Your task to perform on an android device: Open Google Maps and go to "Timeline" Image 0: 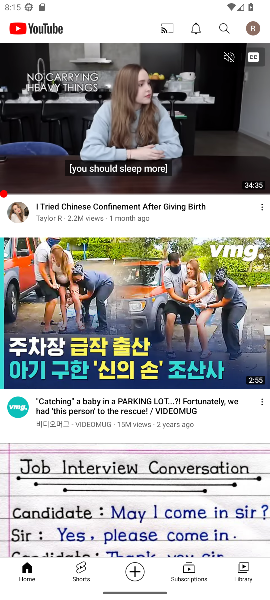
Step 0: press home button
Your task to perform on an android device: Open Google Maps and go to "Timeline" Image 1: 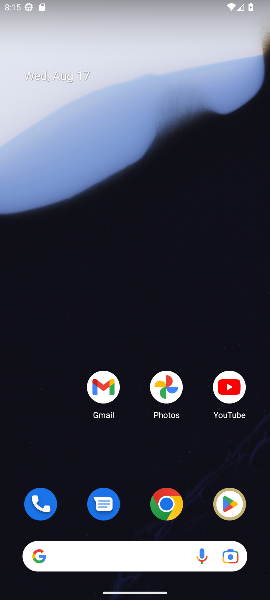
Step 1: drag from (167, 474) to (267, 39)
Your task to perform on an android device: Open Google Maps and go to "Timeline" Image 2: 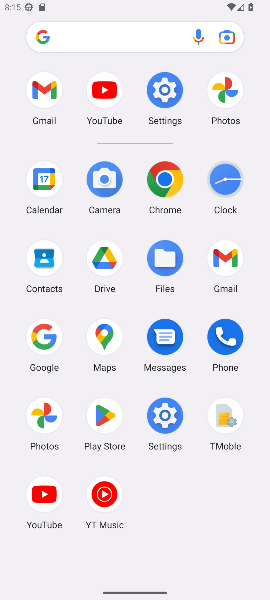
Step 2: click (117, 352)
Your task to perform on an android device: Open Google Maps and go to "Timeline" Image 3: 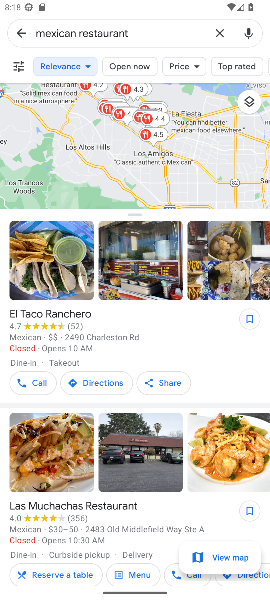
Step 3: press back button
Your task to perform on an android device: Open Google Maps and go to "Timeline" Image 4: 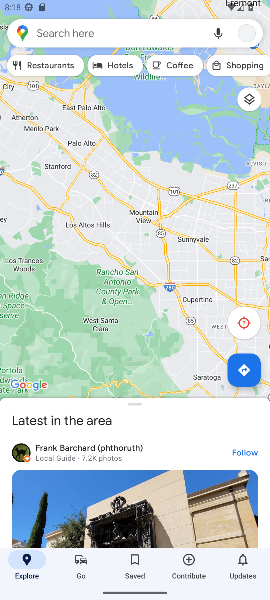
Step 4: drag from (203, 531) to (153, 200)
Your task to perform on an android device: Open Google Maps and go to "Timeline" Image 5: 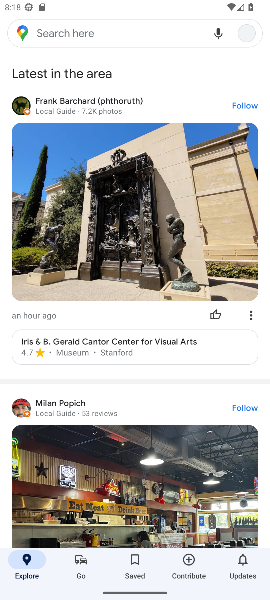
Step 5: click (241, 563)
Your task to perform on an android device: Open Google Maps and go to "Timeline" Image 6: 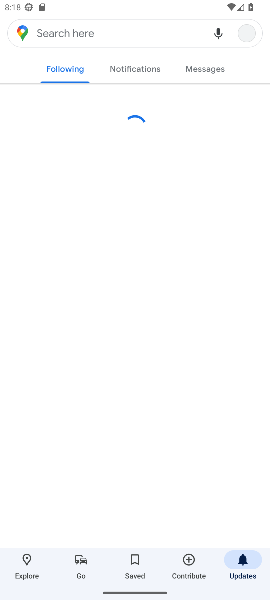
Step 6: task complete